Your task to perform on an android device: Open Chrome and go to the settings page Image 0: 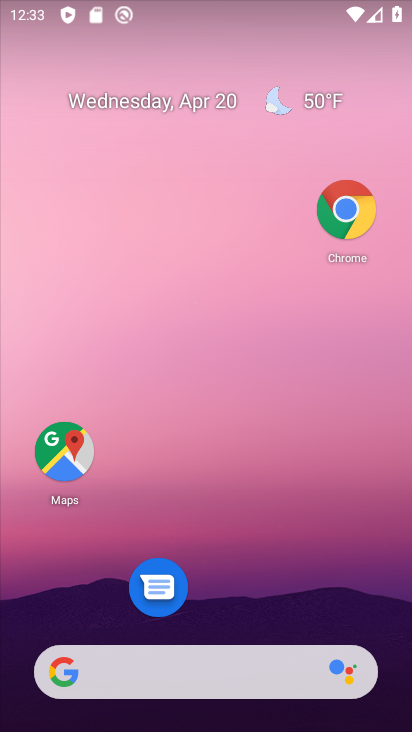
Step 0: click (345, 210)
Your task to perform on an android device: Open Chrome and go to the settings page Image 1: 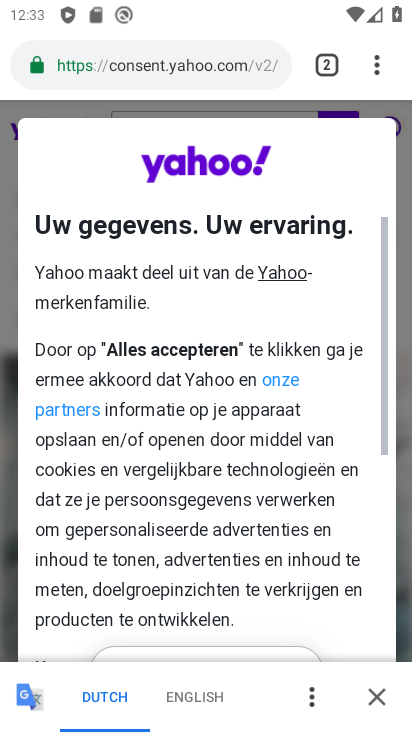
Step 1: click (374, 62)
Your task to perform on an android device: Open Chrome and go to the settings page Image 2: 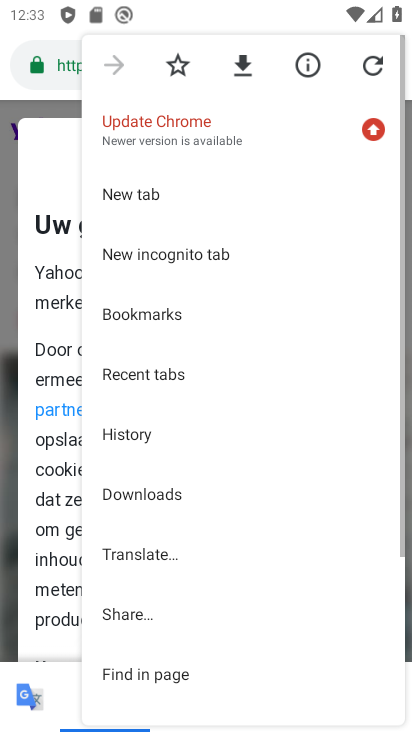
Step 2: drag from (176, 615) to (216, 410)
Your task to perform on an android device: Open Chrome and go to the settings page Image 3: 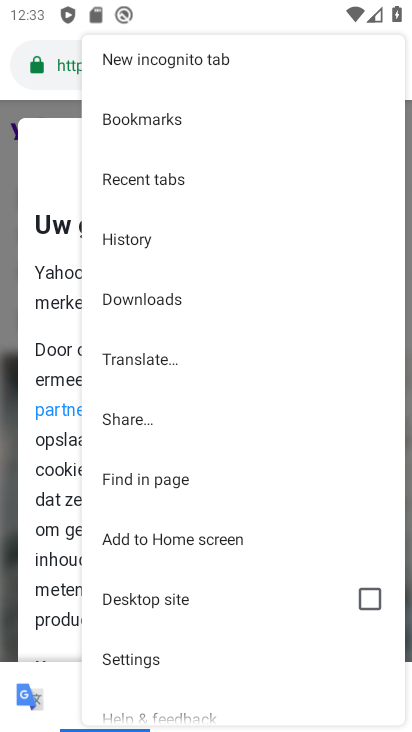
Step 3: click (137, 652)
Your task to perform on an android device: Open Chrome and go to the settings page Image 4: 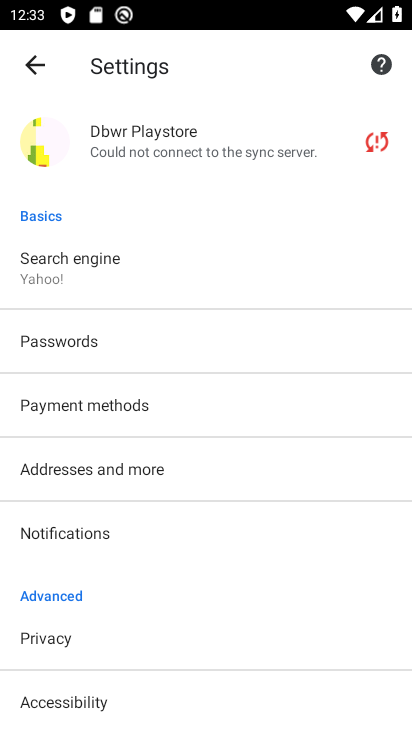
Step 4: task complete